Your task to perform on an android device: find photos in the google photos app Image 0: 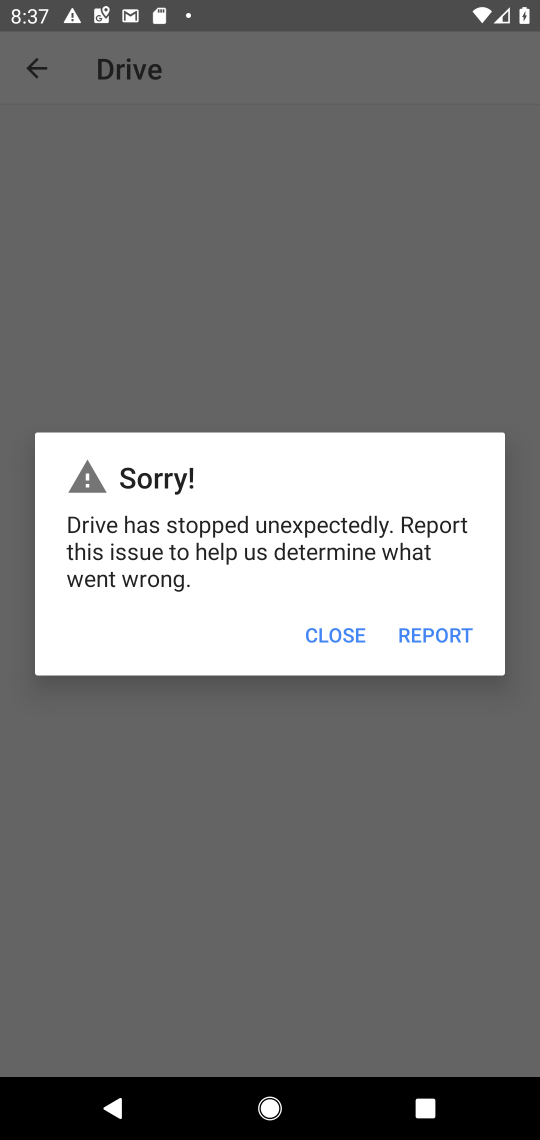
Step 0: press home button
Your task to perform on an android device: find photos in the google photos app Image 1: 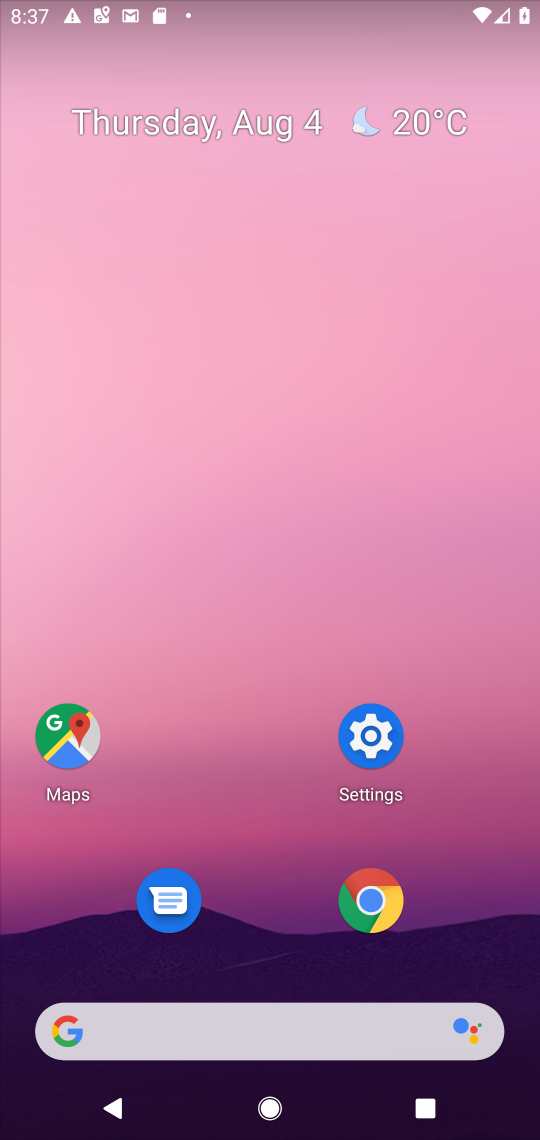
Step 1: drag from (286, 1034) to (372, 332)
Your task to perform on an android device: find photos in the google photos app Image 2: 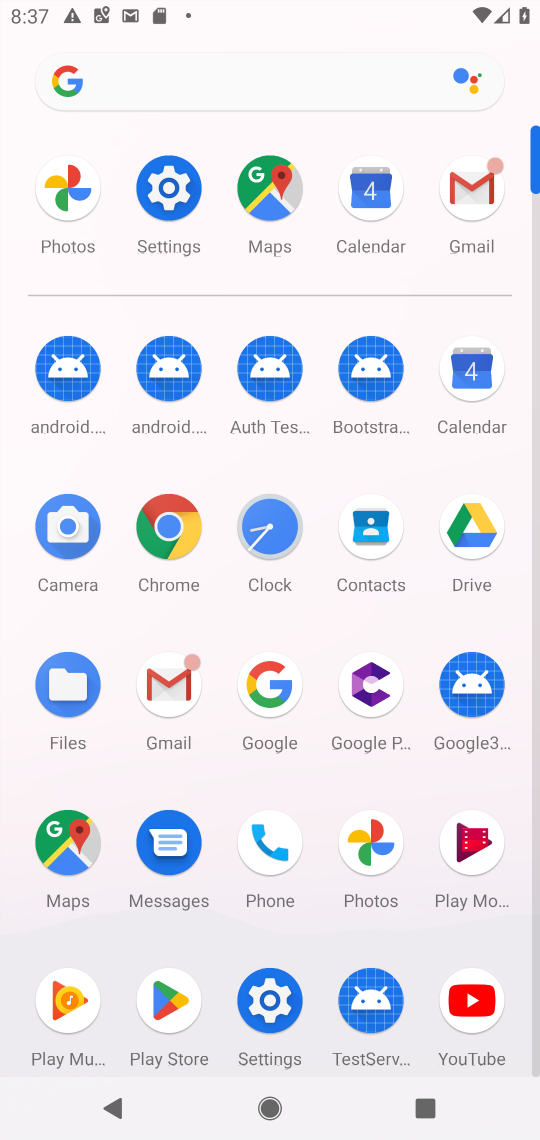
Step 2: click (361, 835)
Your task to perform on an android device: find photos in the google photos app Image 3: 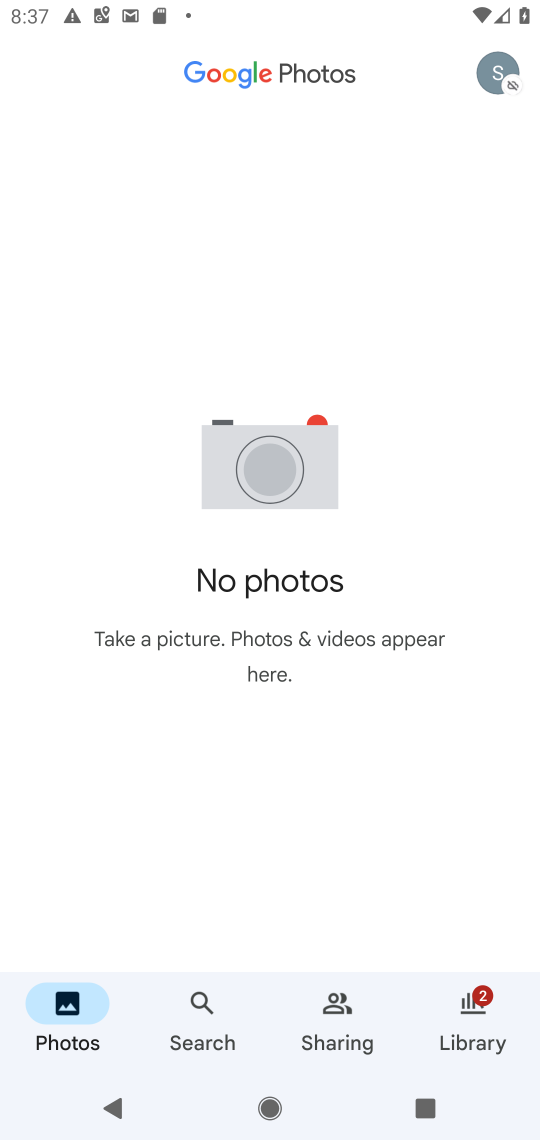
Step 3: task complete